Your task to perform on an android device: turn notification dots on Image 0: 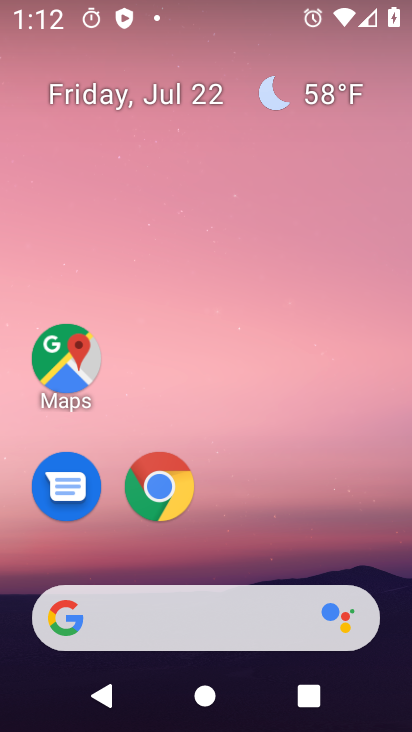
Step 0: drag from (374, 544) to (360, 96)
Your task to perform on an android device: turn notification dots on Image 1: 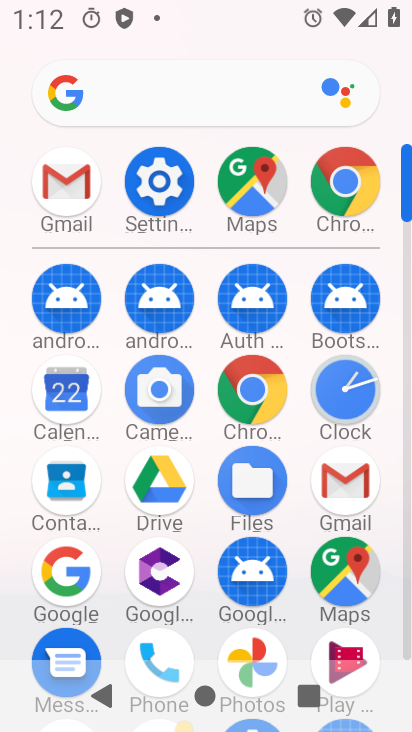
Step 1: click (153, 199)
Your task to perform on an android device: turn notification dots on Image 2: 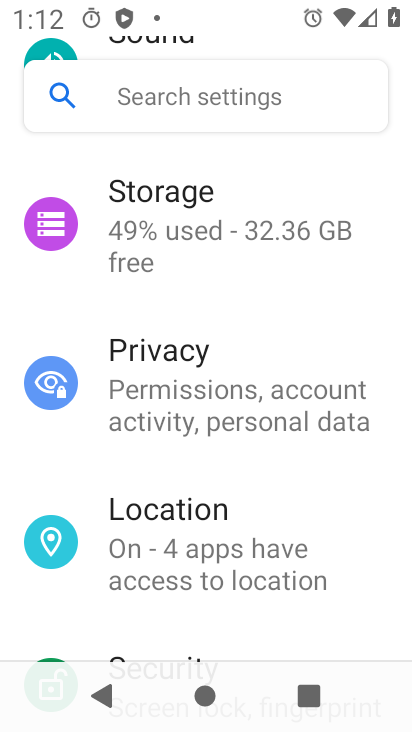
Step 2: drag from (377, 286) to (378, 359)
Your task to perform on an android device: turn notification dots on Image 3: 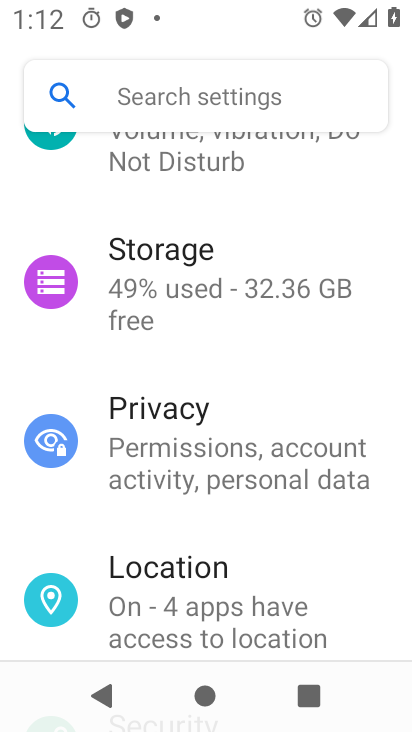
Step 3: drag from (367, 226) to (367, 351)
Your task to perform on an android device: turn notification dots on Image 4: 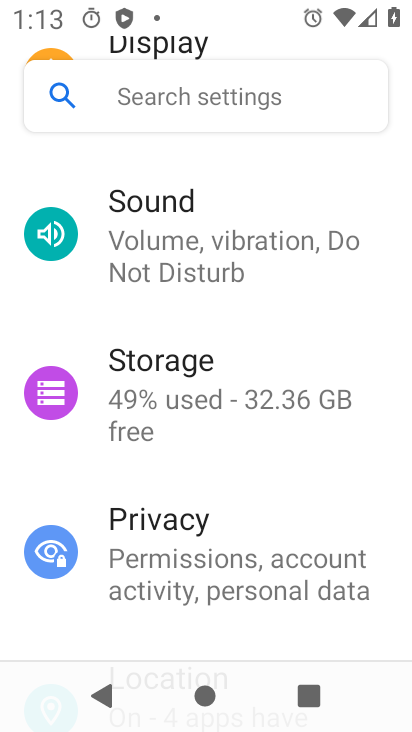
Step 4: drag from (371, 202) to (377, 344)
Your task to perform on an android device: turn notification dots on Image 5: 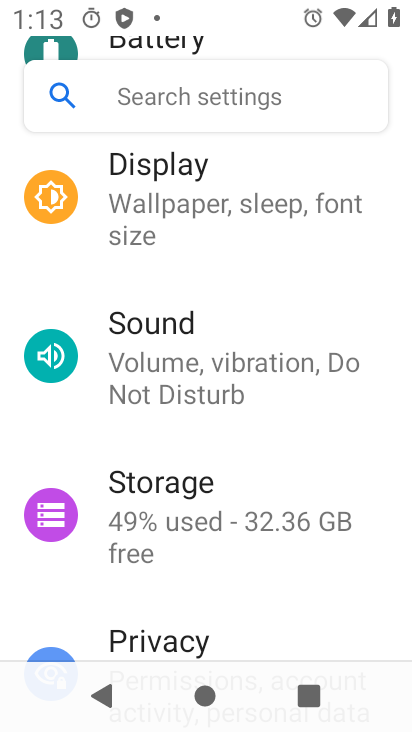
Step 5: drag from (377, 235) to (382, 347)
Your task to perform on an android device: turn notification dots on Image 6: 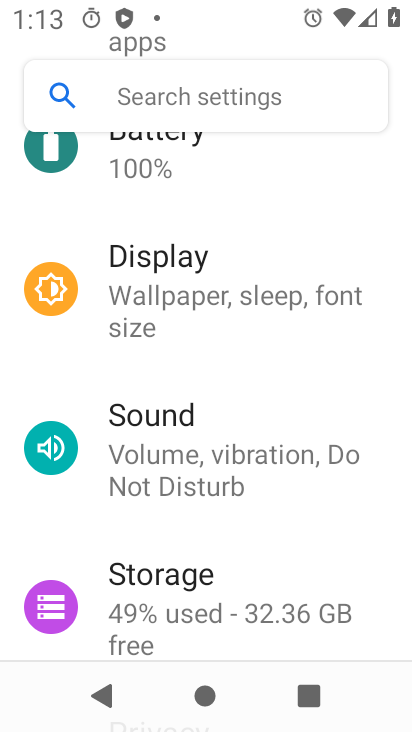
Step 6: drag from (369, 201) to (369, 328)
Your task to perform on an android device: turn notification dots on Image 7: 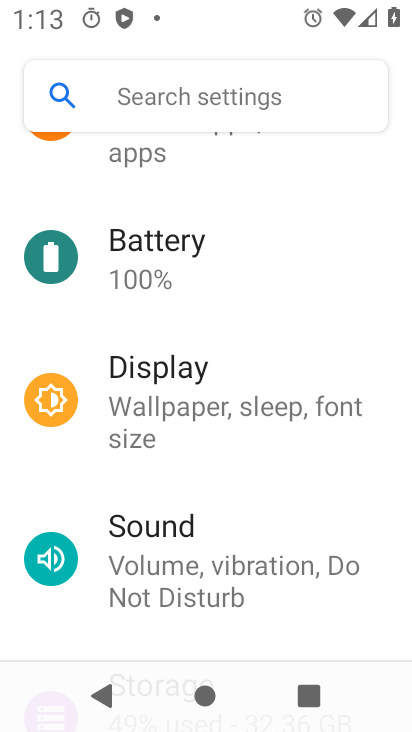
Step 7: drag from (350, 200) to (359, 313)
Your task to perform on an android device: turn notification dots on Image 8: 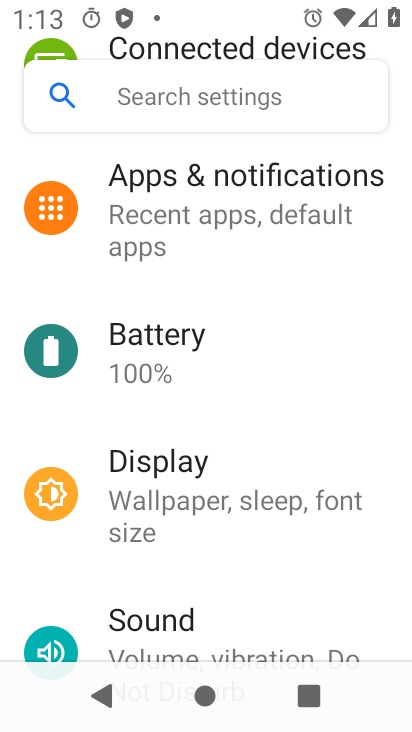
Step 8: drag from (378, 257) to (368, 363)
Your task to perform on an android device: turn notification dots on Image 9: 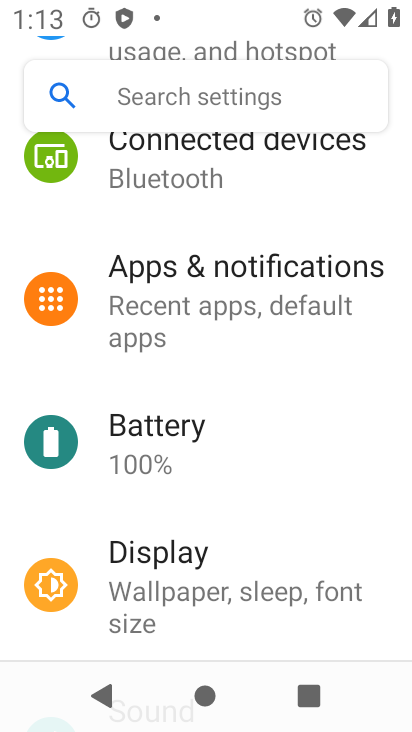
Step 9: click (345, 300)
Your task to perform on an android device: turn notification dots on Image 10: 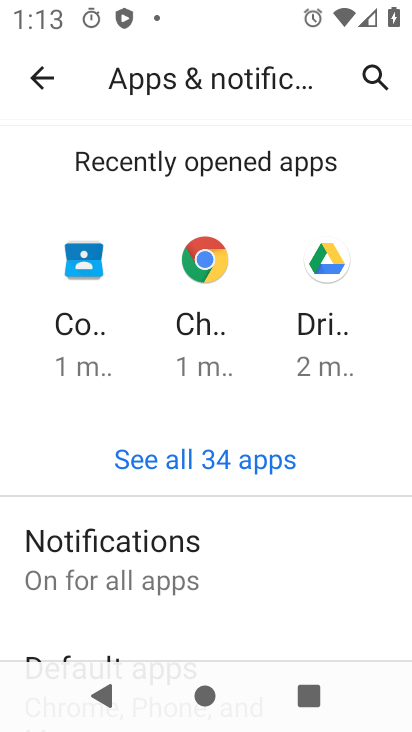
Step 10: click (297, 559)
Your task to perform on an android device: turn notification dots on Image 11: 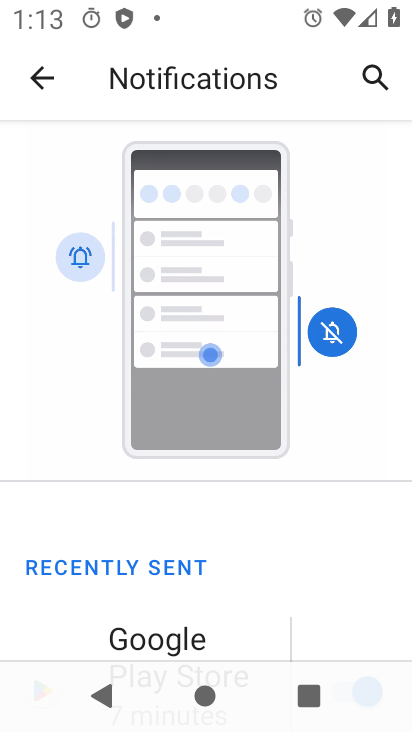
Step 11: drag from (298, 564) to (300, 492)
Your task to perform on an android device: turn notification dots on Image 12: 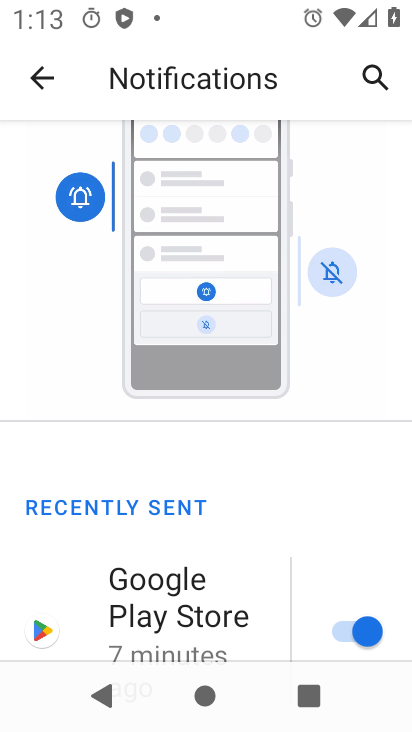
Step 12: drag from (285, 562) to (285, 490)
Your task to perform on an android device: turn notification dots on Image 13: 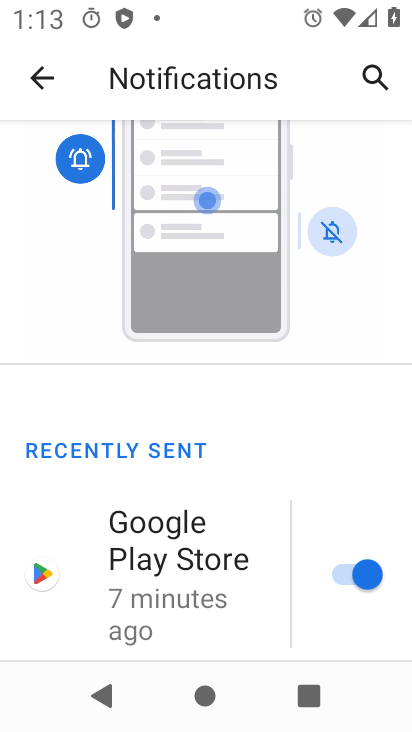
Step 13: drag from (257, 583) to (266, 509)
Your task to perform on an android device: turn notification dots on Image 14: 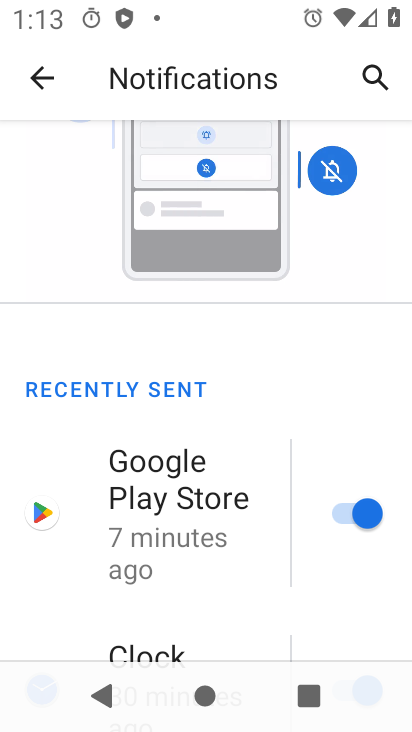
Step 14: drag from (271, 585) to (265, 506)
Your task to perform on an android device: turn notification dots on Image 15: 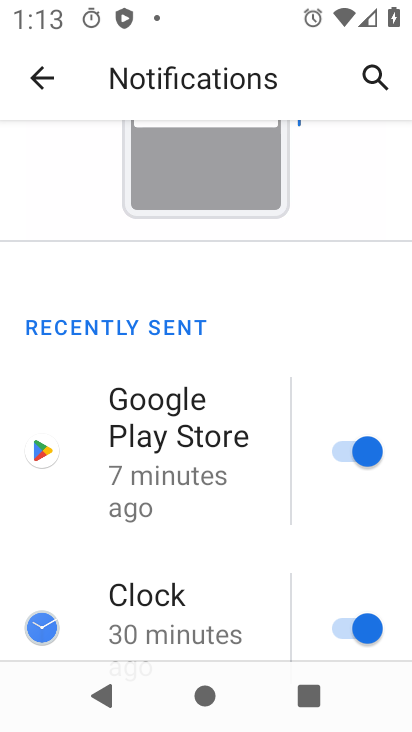
Step 15: drag from (255, 585) to (255, 526)
Your task to perform on an android device: turn notification dots on Image 16: 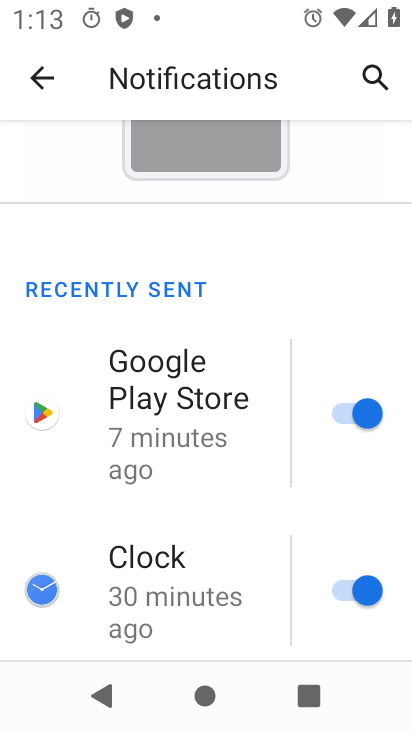
Step 16: drag from (255, 593) to (255, 518)
Your task to perform on an android device: turn notification dots on Image 17: 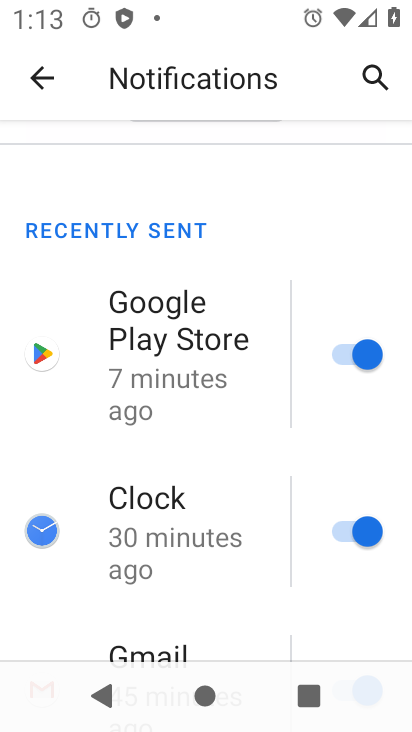
Step 17: drag from (255, 602) to (255, 534)
Your task to perform on an android device: turn notification dots on Image 18: 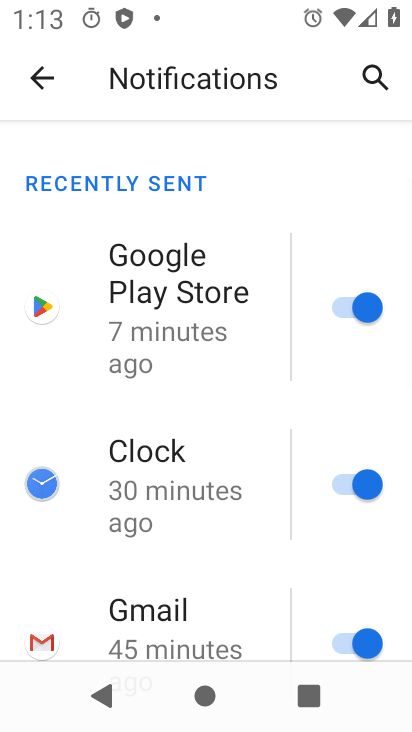
Step 18: drag from (253, 615) to (255, 543)
Your task to perform on an android device: turn notification dots on Image 19: 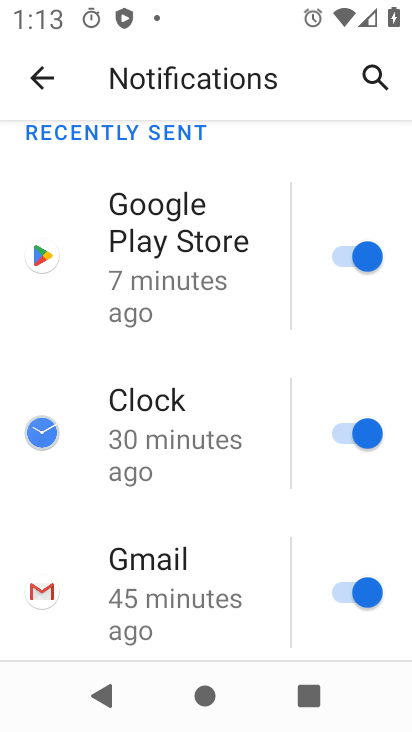
Step 19: drag from (252, 623) to (252, 552)
Your task to perform on an android device: turn notification dots on Image 20: 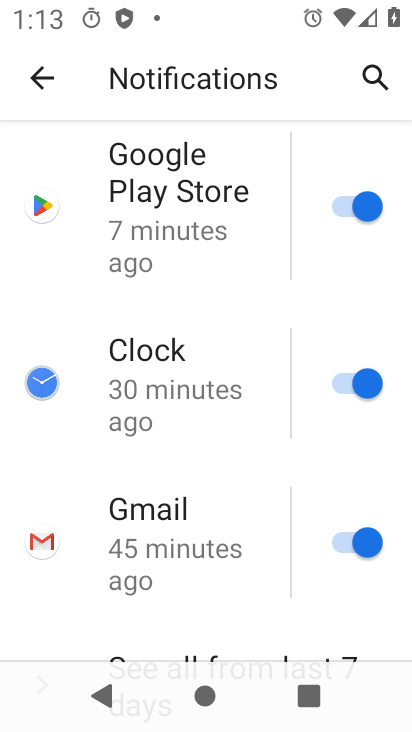
Step 20: drag from (254, 612) to (254, 529)
Your task to perform on an android device: turn notification dots on Image 21: 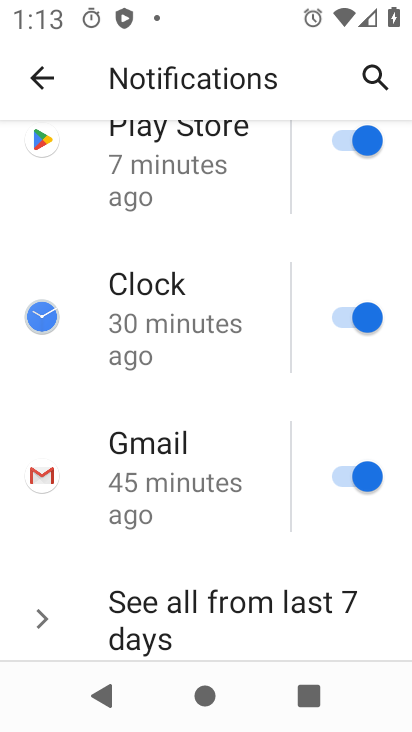
Step 21: drag from (250, 603) to (243, 498)
Your task to perform on an android device: turn notification dots on Image 22: 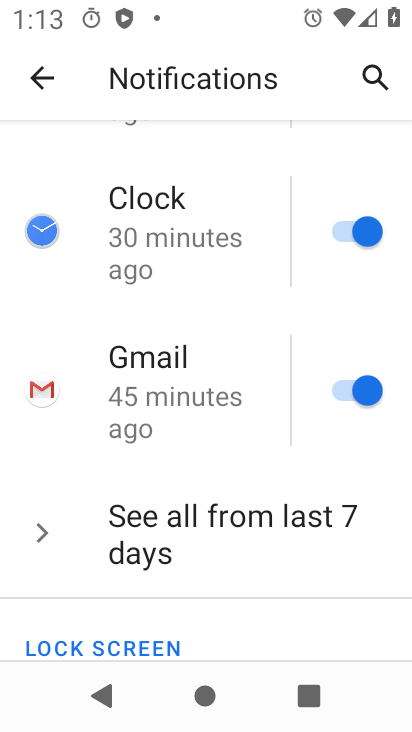
Step 22: drag from (227, 580) to (227, 480)
Your task to perform on an android device: turn notification dots on Image 23: 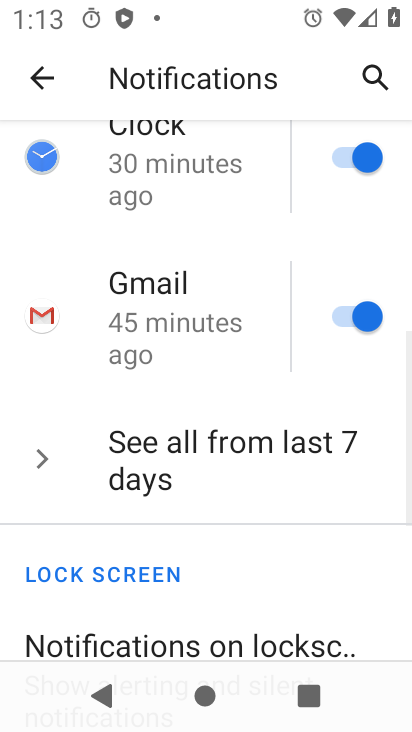
Step 23: drag from (242, 598) to (243, 473)
Your task to perform on an android device: turn notification dots on Image 24: 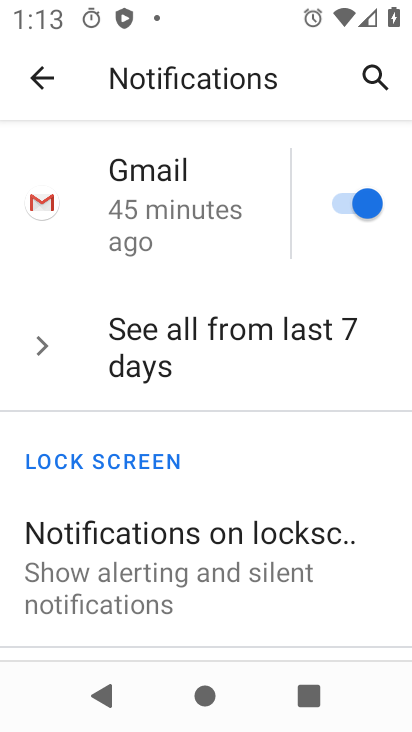
Step 24: drag from (237, 589) to (237, 447)
Your task to perform on an android device: turn notification dots on Image 25: 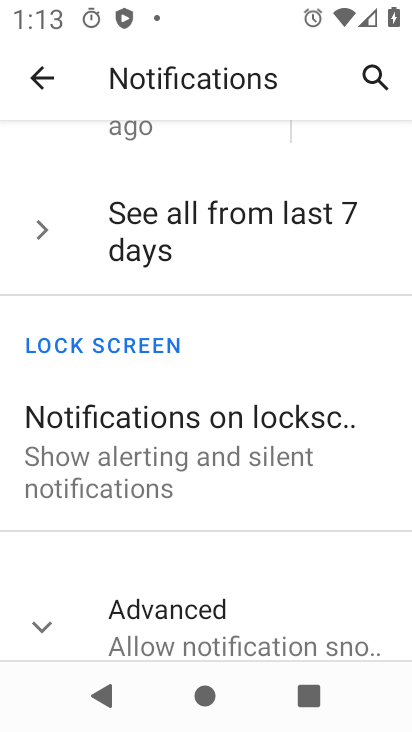
Step 25: click (243, 626)
Your task to perform on an android device: turn notification dots on Image 26: 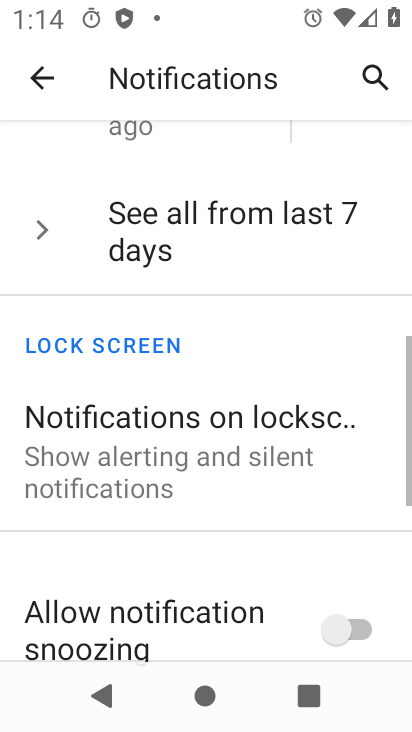
Step 26: task complete